Your task to perform on an android device: Open Wikipedia Image 0: 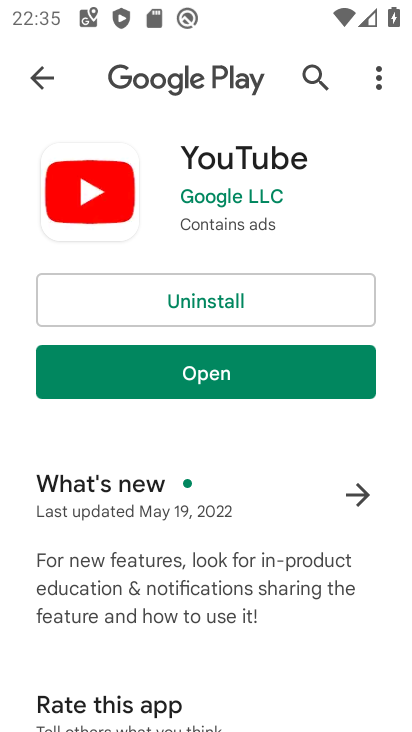
Step 0: press home button
Your task to perform on an android device: Open Wikipedia Image 1: 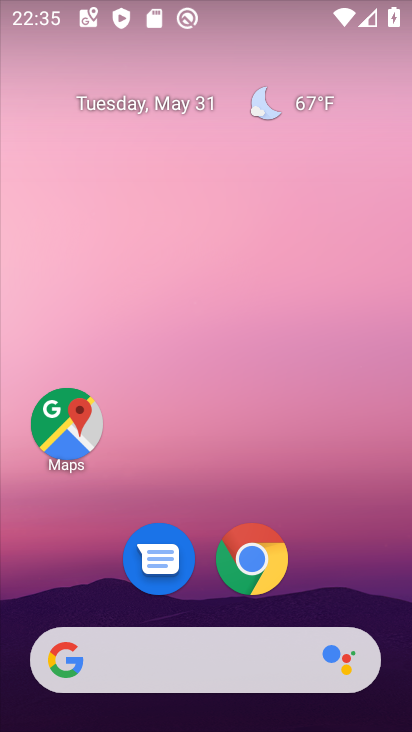
Step 1: click (257, 559)
Your task to perform on an android device: Open Wikipedia Image 2: 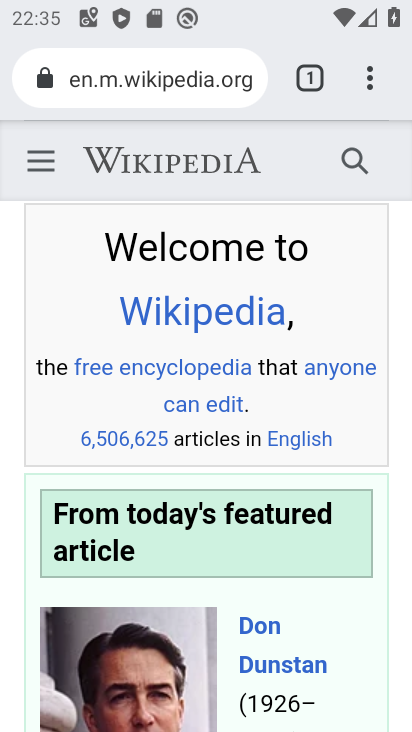
Step 2: press back button
Your task to perform on an android device: Open Wikipedia Image 3: 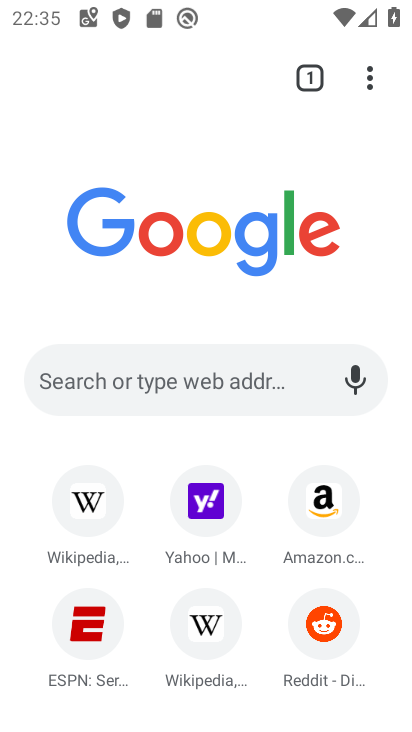
Step 3: click (100, 512)
Your task to perform on an android device: Open Wikipedia Image 4: 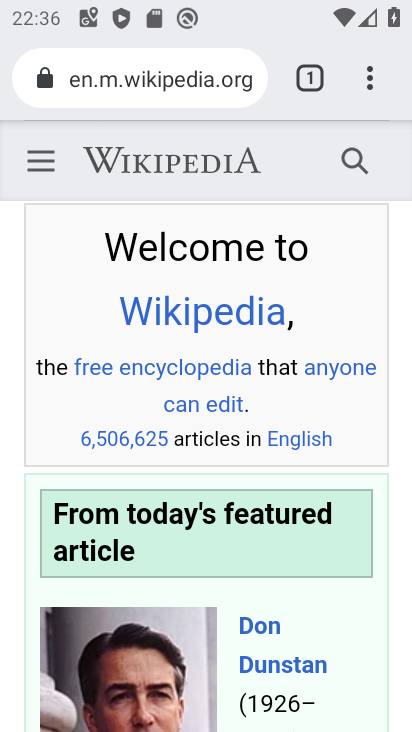
Step 4: task complete